Your task to perform on an android device: Open Google Chrome Image 0: 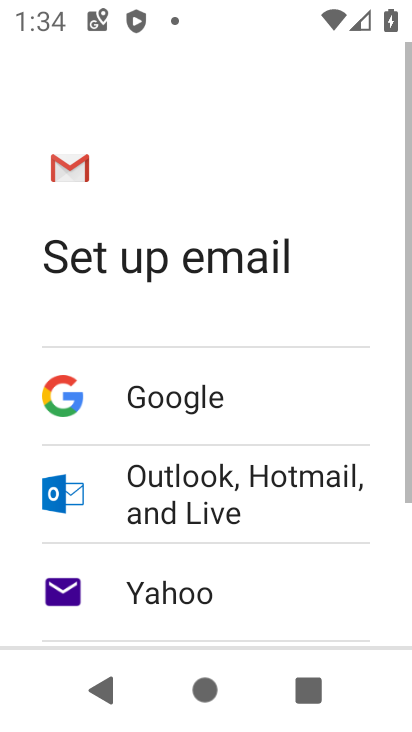
Step 0: press home button
Your task to perform on an android device: Open Google Chrome Image 1: 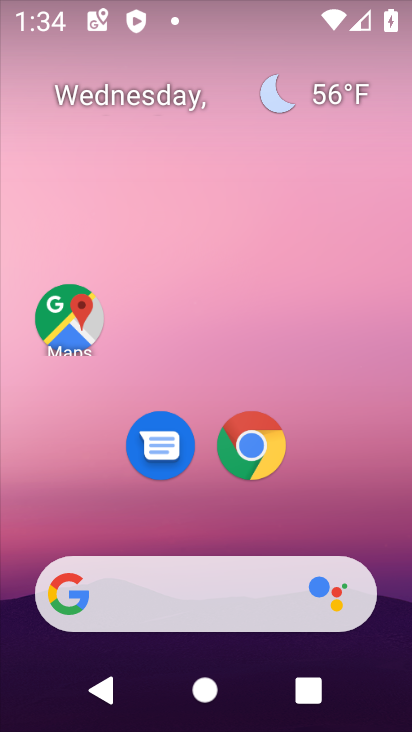
Step 1: click (242, 457)
Your task to perform on an android device: Open Google Chrome Image 2: 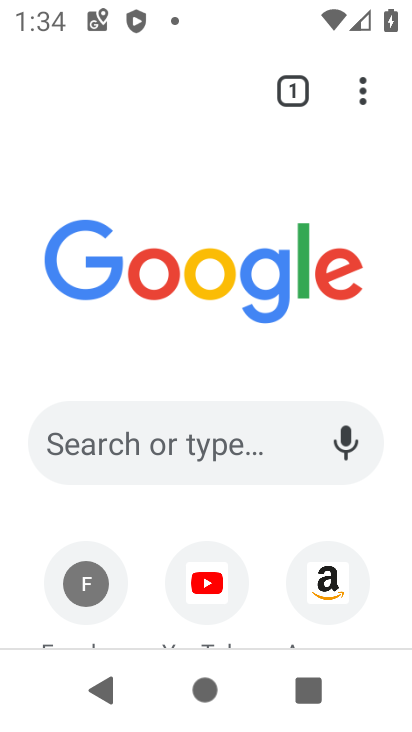
Step 2: task complete